Your task to perform on an android device: toggle location history Image 0: 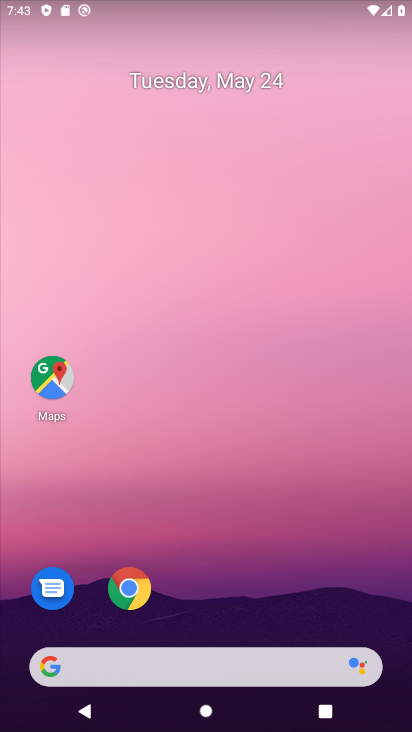
Step 0: drag from (206, 594) to (407, 16)
Your task to perform on an android device: toggle location history Image 1: 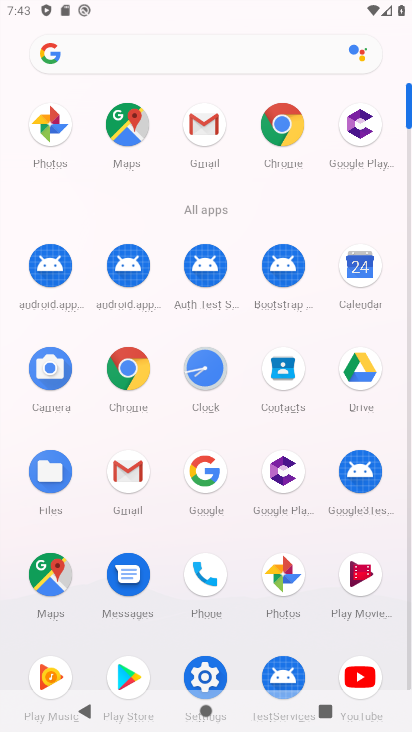
Step 1: click (203, 669)
Your task to perform on an android device: toggle location history Image 2: 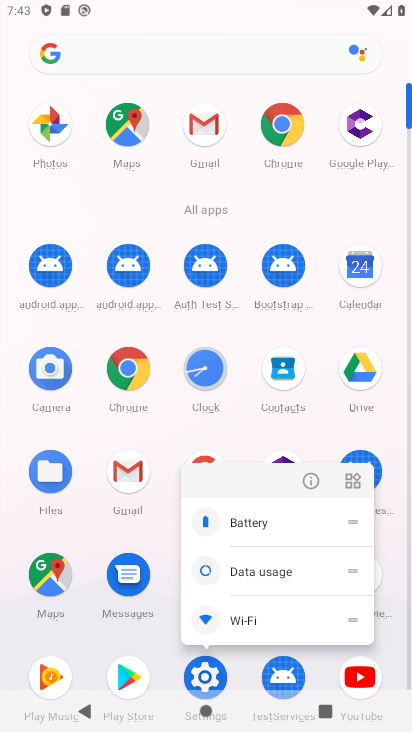
Step 2: click (308, 473)
Your task to perform on an android device: toggle location history Image 3: 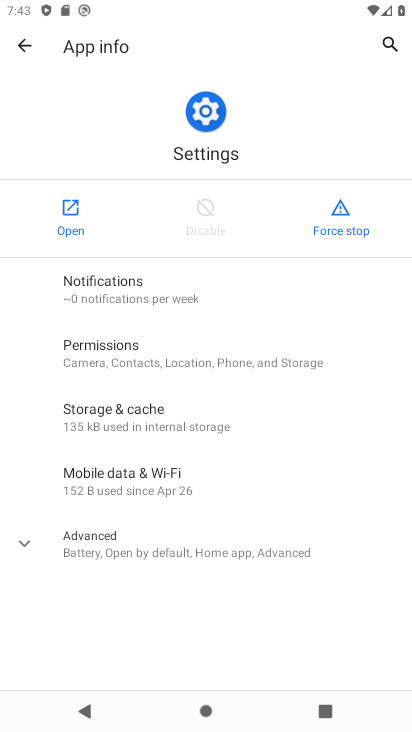
Step 3: click (59, 195)
Your task to perform on an android device: toggle location history Image 4: 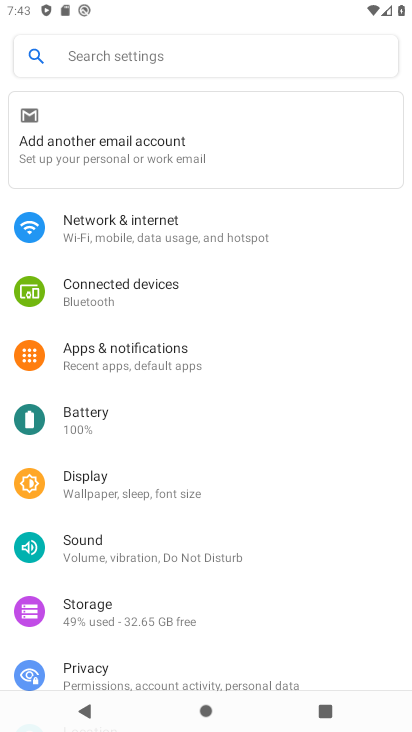
Step 4: drag from (175, 684) to (275, 185)
Your task to perform on an android device: toggle location history Image 5: 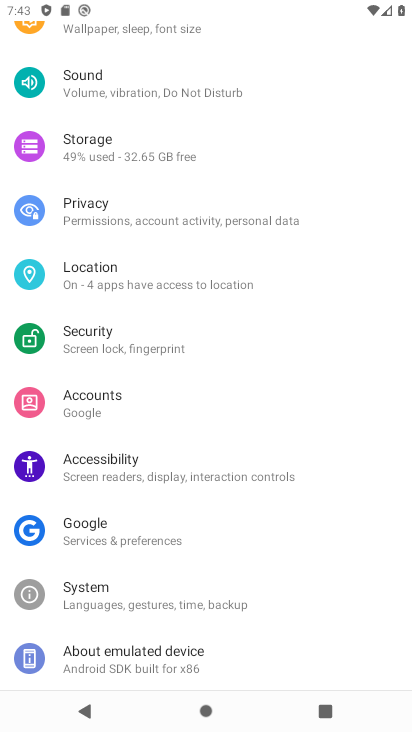
Step 5: click (155, 277)
Your task to perform on an android device: toggle location history Image 6: 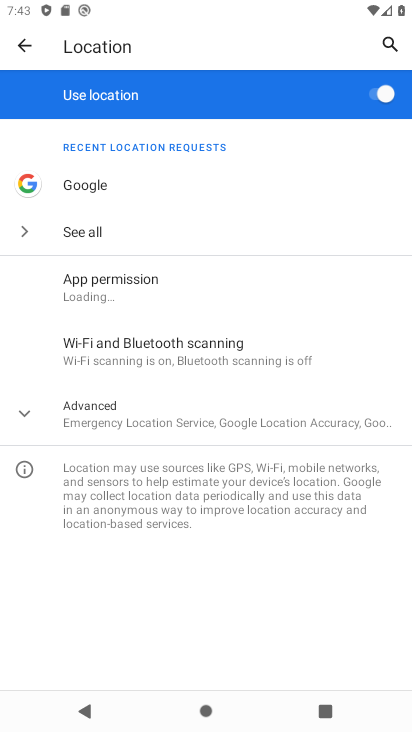
Step 6: click (175, 410)
Your task to perform on an android device: toggle location history Image 7: 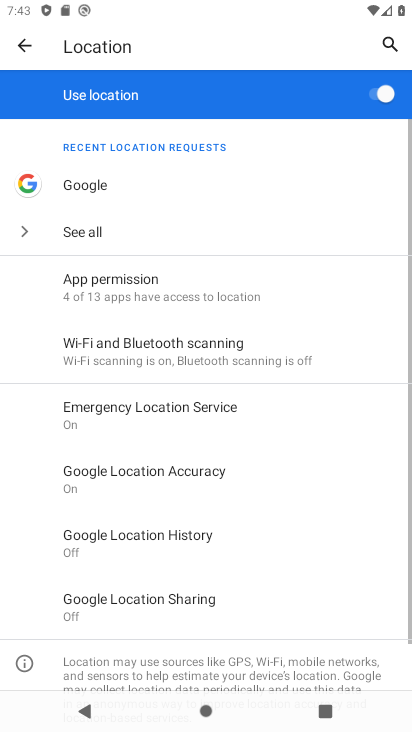
Step 7: drag from (191, 579) to (369, 183)
Your task to perform on an android device: toggle location history Image 8: 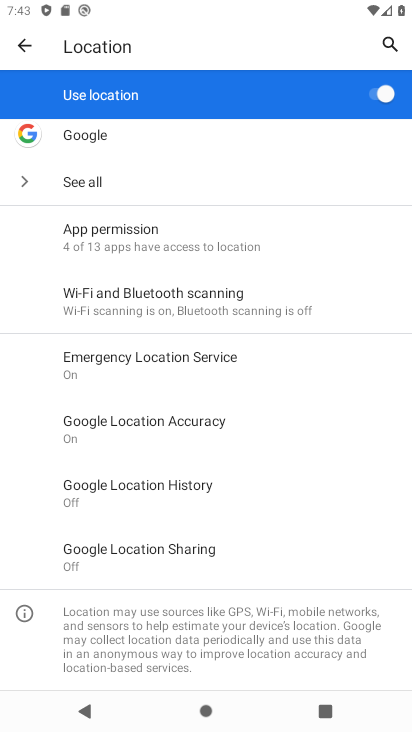
Step 8: click (183, 497)
Your task to perform on an android device: toggle location history Image 9: 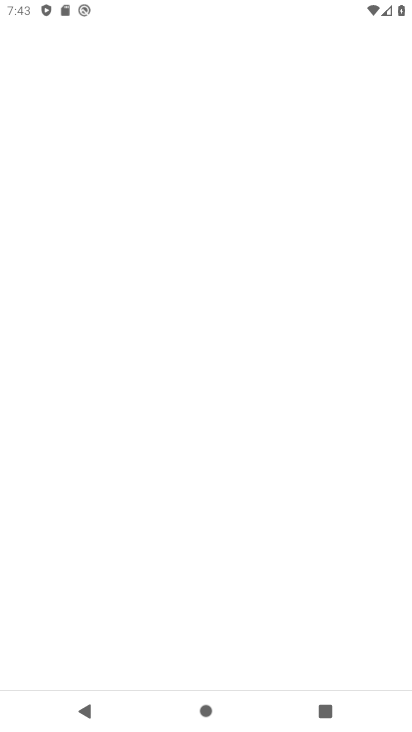
Step 9: drag from (214, 482) to (373, 89)
Your task to perform on an android device: toggle location history Image 10: 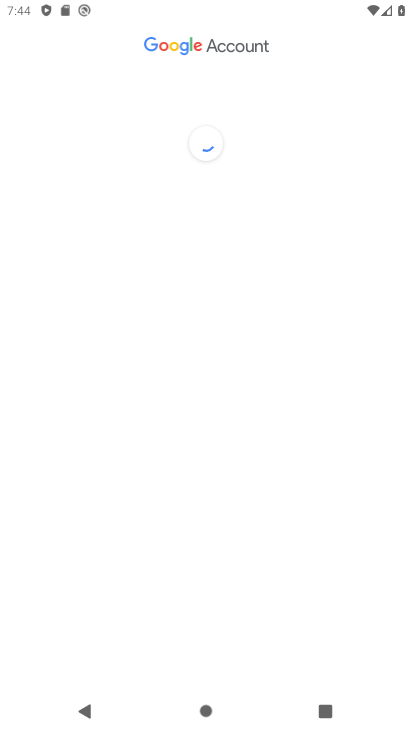
Step 10: drag from (264, 604) to (404, 111)
Your task to perform on an android device: toggle location history Image 11: 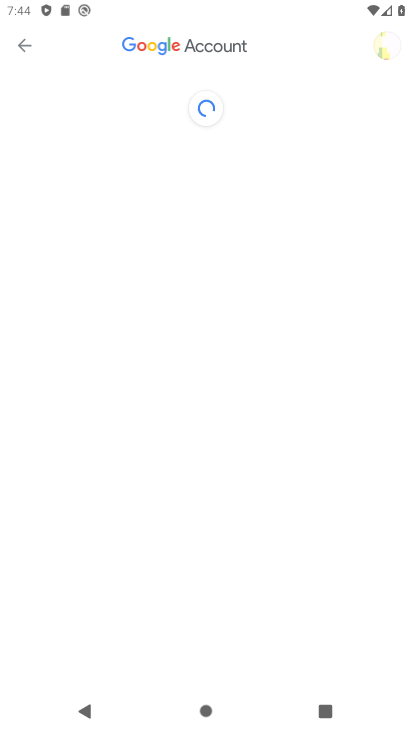
Step 11: drag from (225, 519) to (339, 42)
Your task to perform on an android device: toggle location history Image 12: 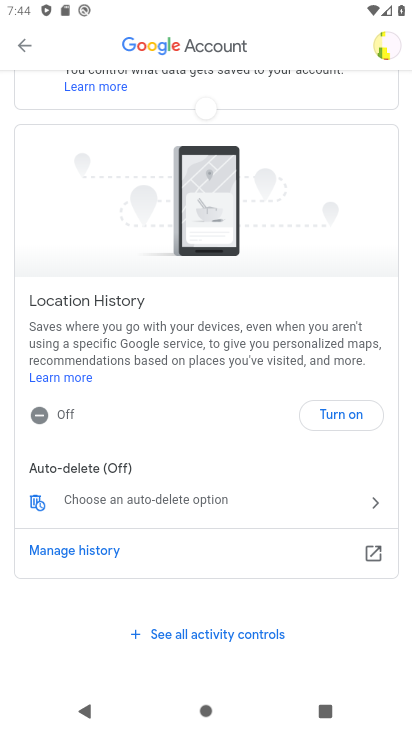
Step 12: click (338, 412)
Your task to perform on an android device: toggle location history Image 13: 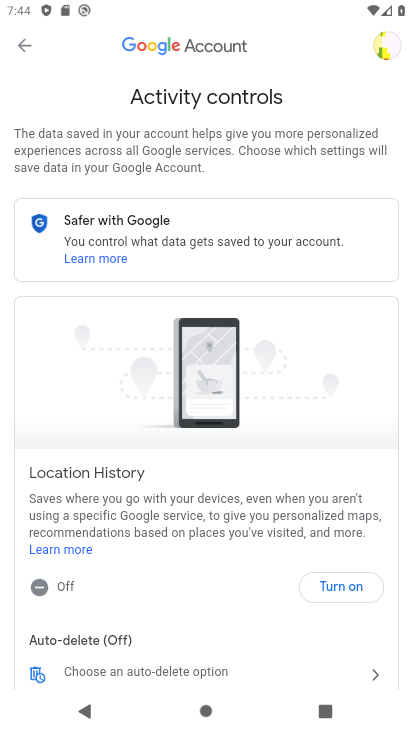
Step 13: click (324, 582)
Your task to perform on an android device: toggle location history Image 14: 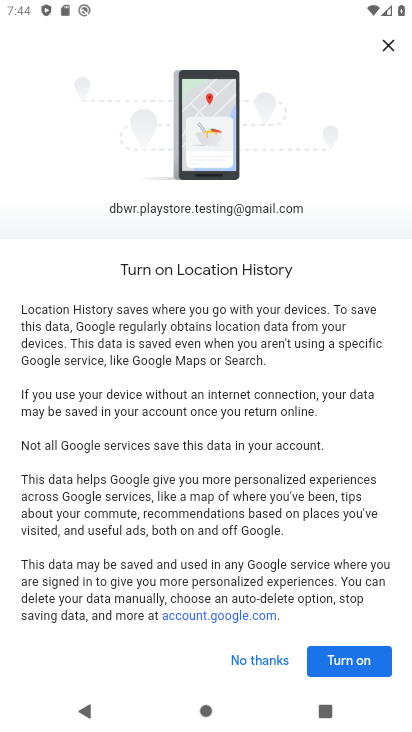
Step 14: drag from (232, 589) to (314, 203)
Your task to perform on an android device: toggle location history Image 15: 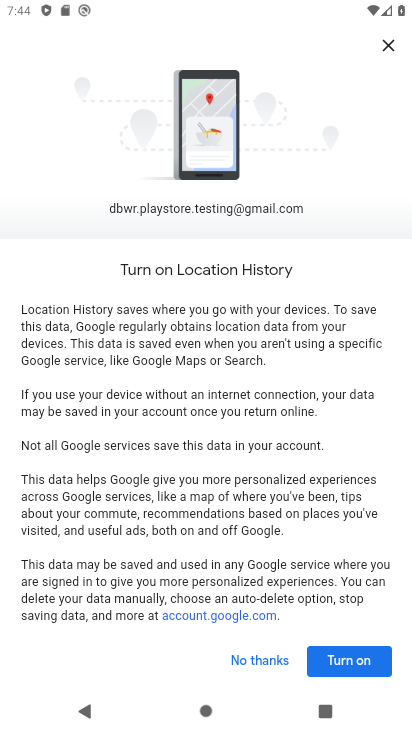
Step 15: click (336, 655)
Your task to perform on an android device: toggle location history Image 16: 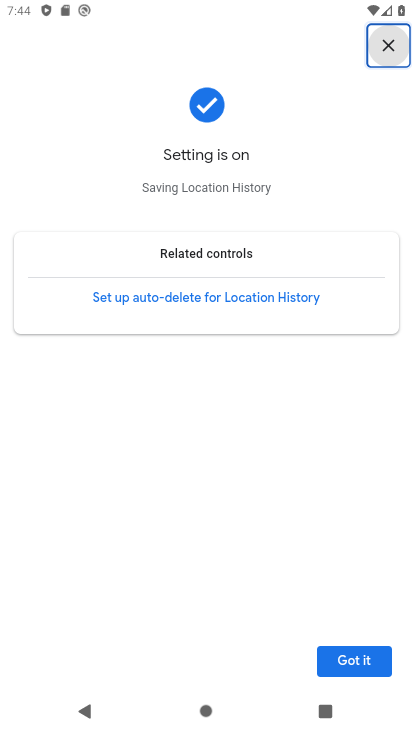
Step 16: click (374, 660)
Your task to perform on an android device: toggle location history Image 17: 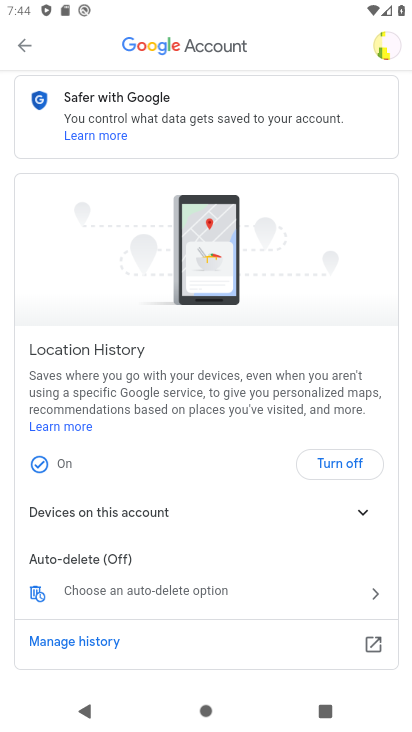
Step 17: task complete